Your task to perform on an android device: Show me recent news Image 0: 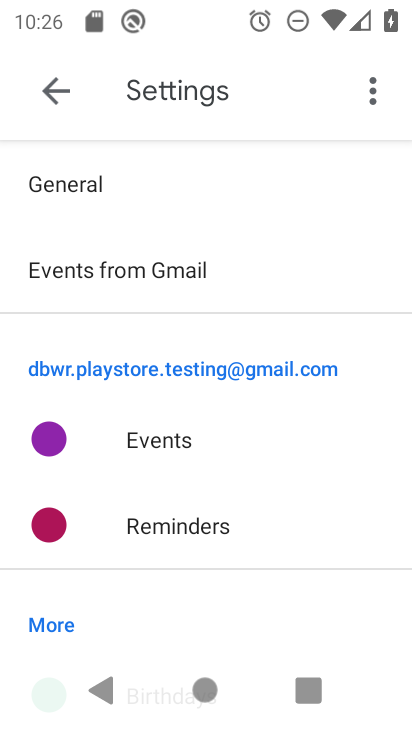
Step 0: press home button
Your task to perform on an android device: Show me recent news Image 1: 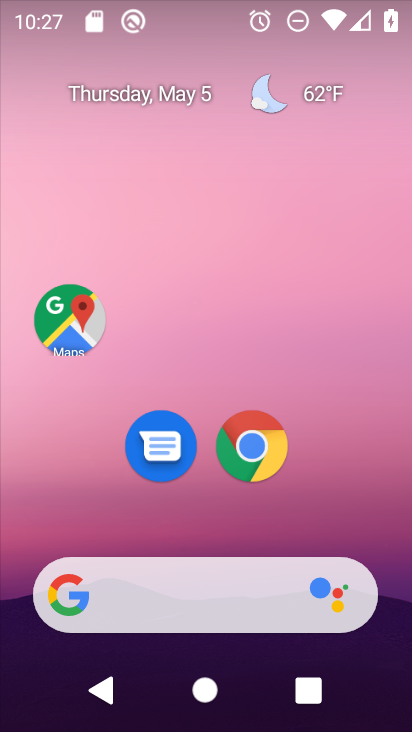
Step 1: click (122, 595)
Your task to perform on an android device: Show me recent news Image 2: 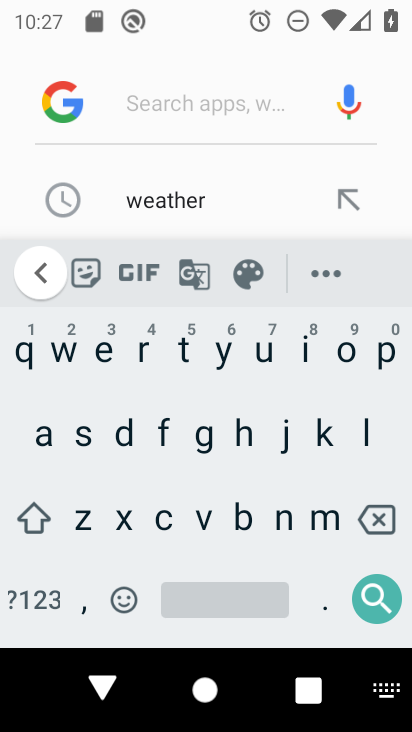
Step 2: click (144, 363)
Your task to perform on an android device: Show me recent news Image 3: 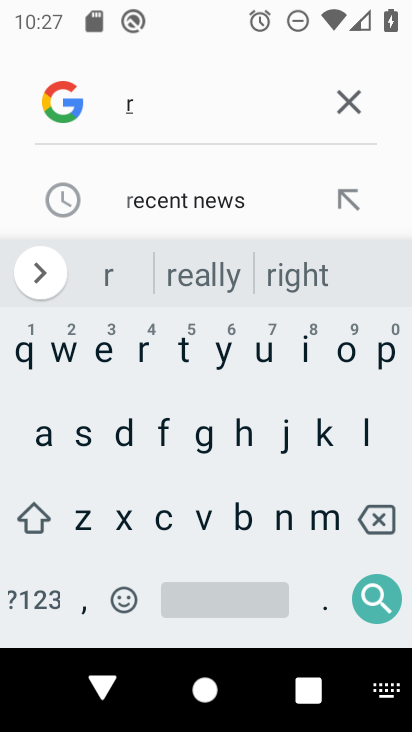
Step 3: click (190, 210)
Your task to perform on an android device: Show me recent news Image 4: 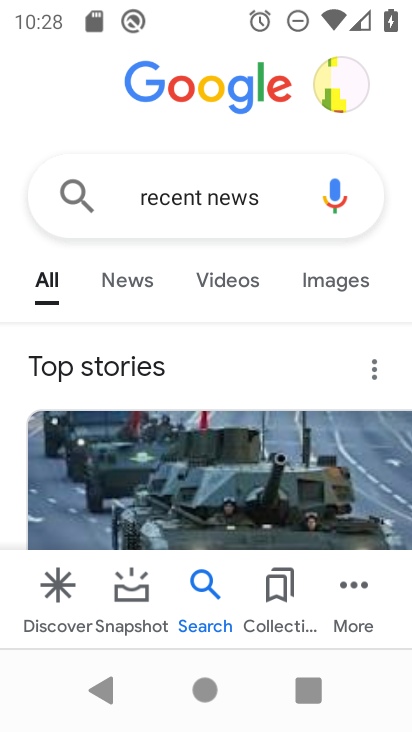
Step 4: task complete